Your task to perform on an android device: Do I have any events tomorrow? Image 0: 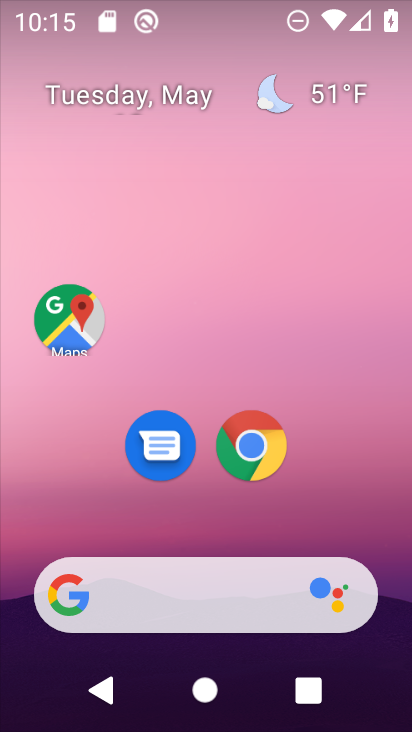
Step 0: drag from (196, 565) to (134, 85)
Your task to perform on an android device: Do I have any events tomorrow? Image 1: 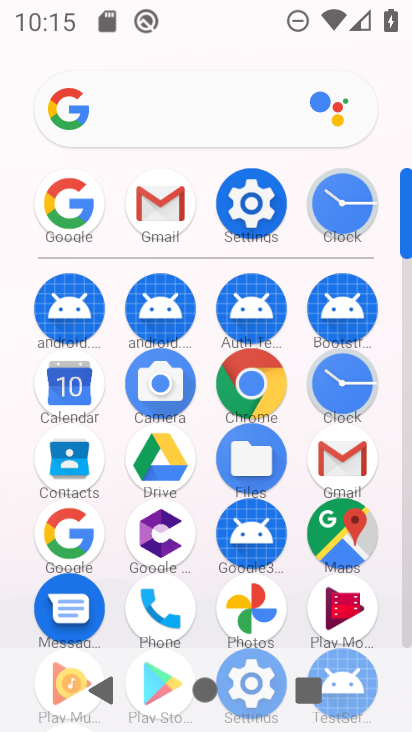
Step 1: click (84, 385)
Your task to perform on an android device: Do I have any events tomorrow? Image 2: 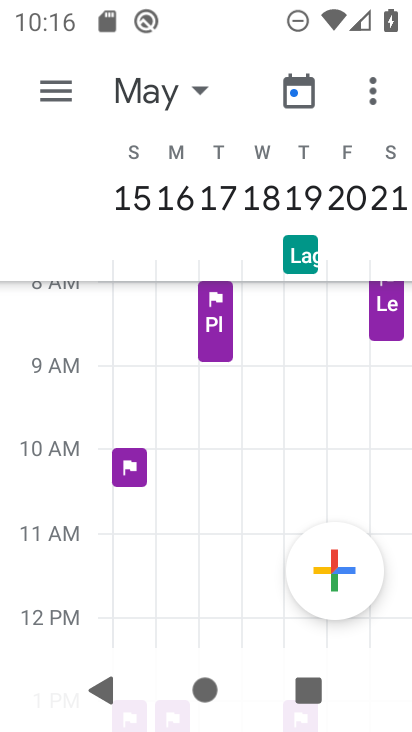
Step 2: click (66, 88)
Your task to perform on an android device: Do I have any events tomorrow? Image 3: 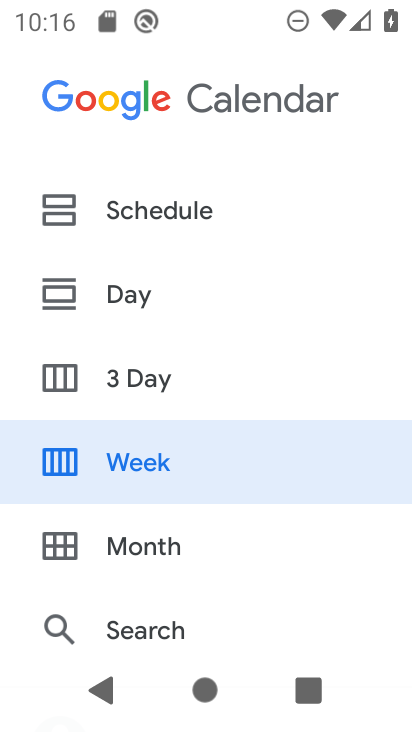
Step 3: click (136, 198)
Your task to perform on an android device: Do I have any events tomorrow? Image 4: 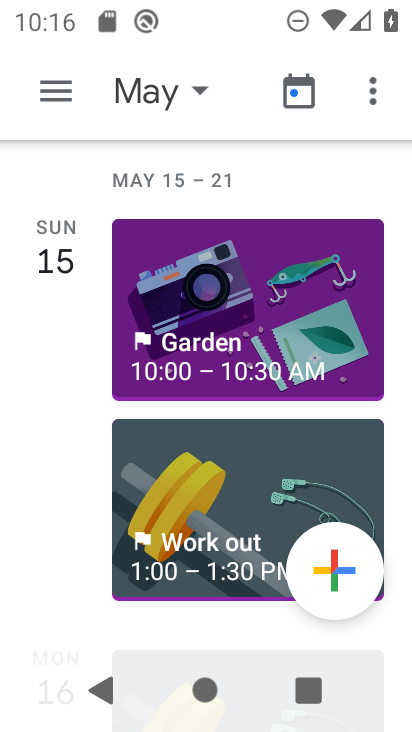
Step 4: click (169, 104)
Your task to perform on an android device: Do I have any events tomorrow? Image 5: 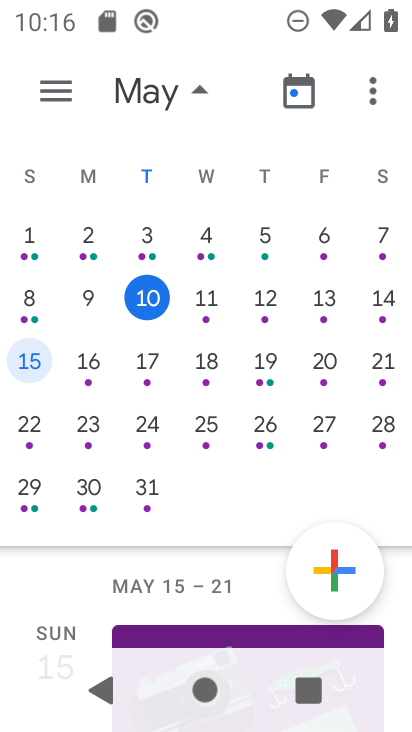
Step 5: click (207, 307)
Your task to perform on an android device: Do I have any events tomorrow? Image 6: 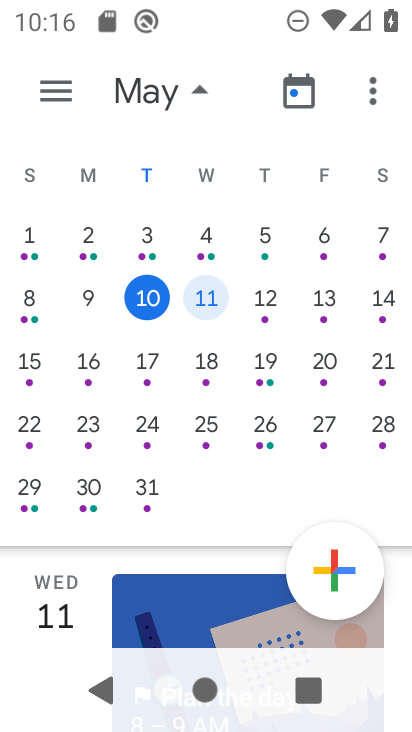
Step 6: click (209, 295)
Your task to perform on an android device: Do I have any events tomorrow? Image 7: 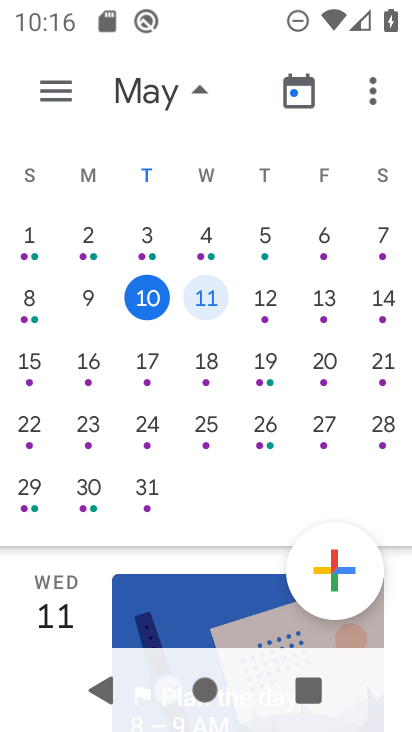
Step 7: click (196, 83)
Your task to perform on an android device: Do I have any events tomorrow? Image 8: 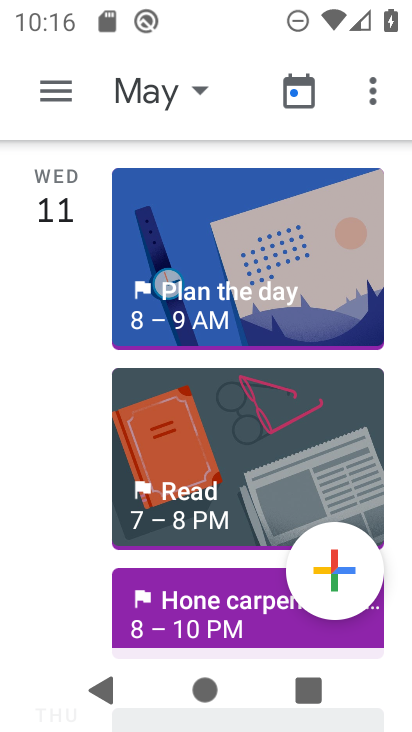
Step 8: task complete